Your task to perform on an android device: Is it going to rain tomorrow? Image 0: 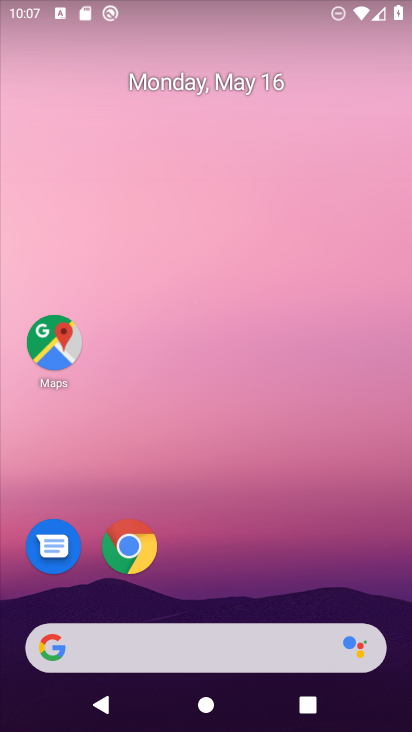
Step 0: click (108, 659)
Your task to perform on an android device: Is it going to rain tomorrow? Image 1: 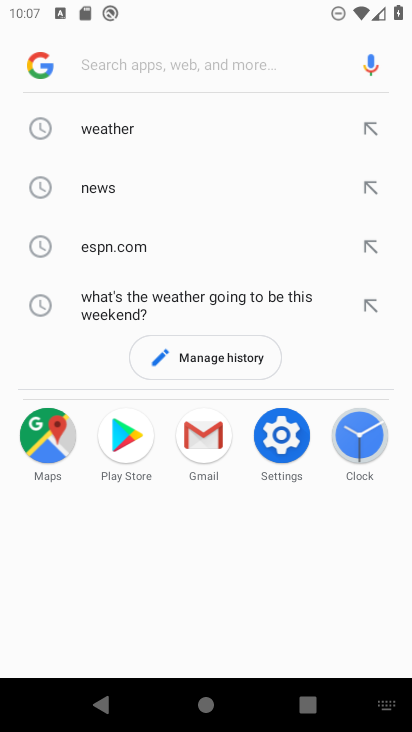
Step 1: click (160, 137)
Your task to perform on an android device: Is it going to rain tomorrow? Image 2: 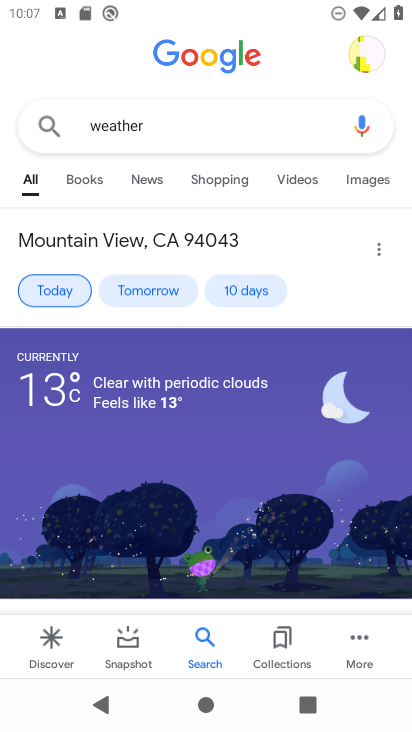
Step 2: click (140, 288)
Your task to perform on an android device: Is it going to rain tomorrow? Image 3: 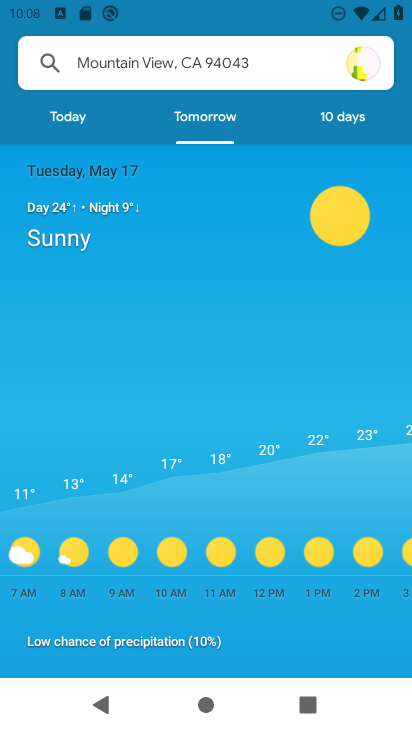
Step 3: task complete